Your task to perform on an android device: show emergency info Image 0: 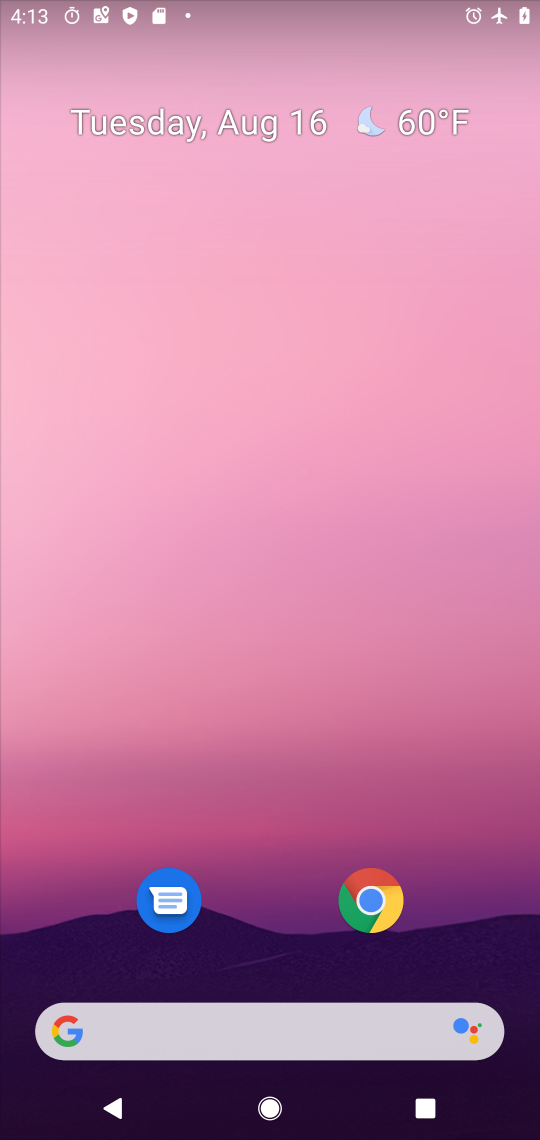
Step 0: drag from (229, 729) to (200, 235)
Your task to perform on an android device: show emergency info Image 1: 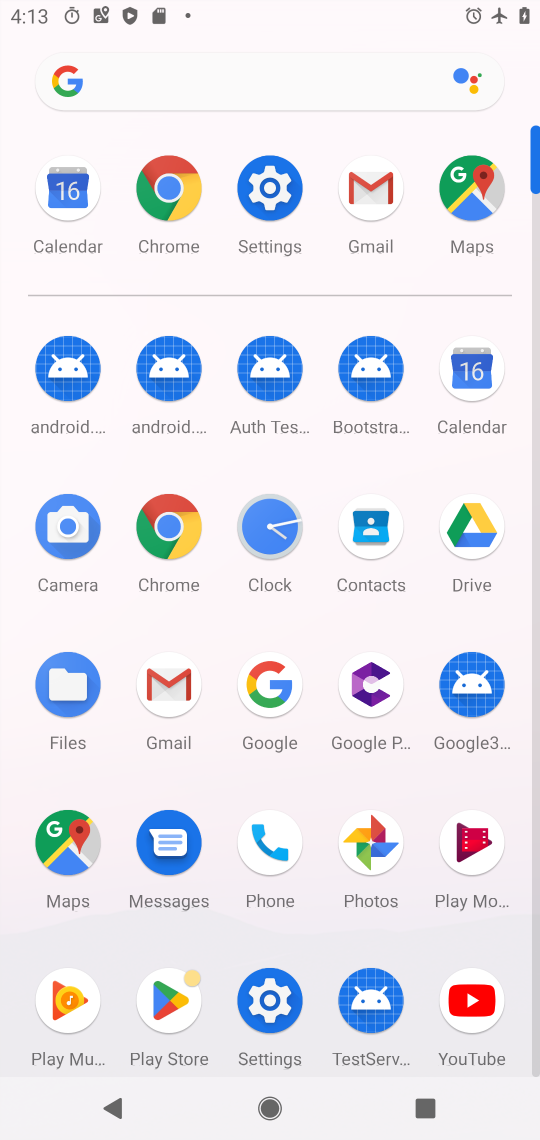
Step 1: click (263, 185)
Your task to perform on an android device: show emergency info Image 2: 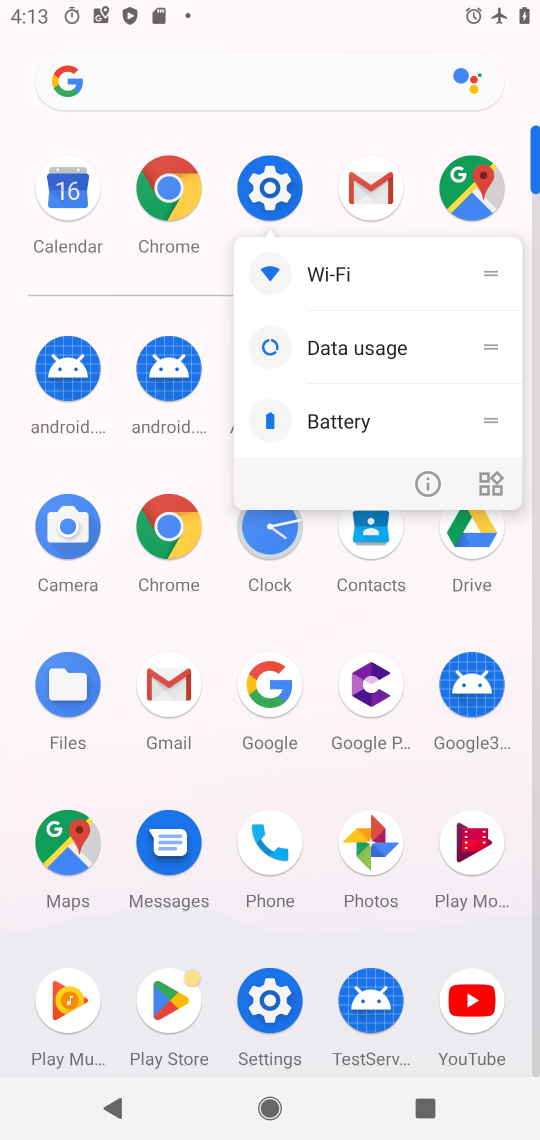
Step 2: click (259, 179)
Your task to perform on an android device: show emergency info Image 3: 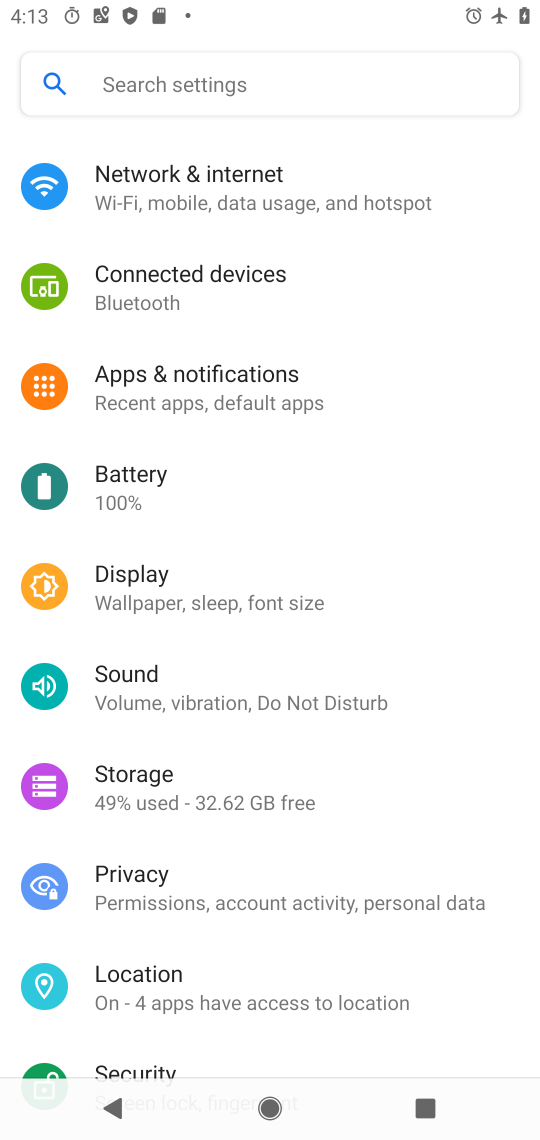
Step 3: drag from (173, 1017) to (139, 513)
Your task to perform on an android device: show emergency info Image 4: 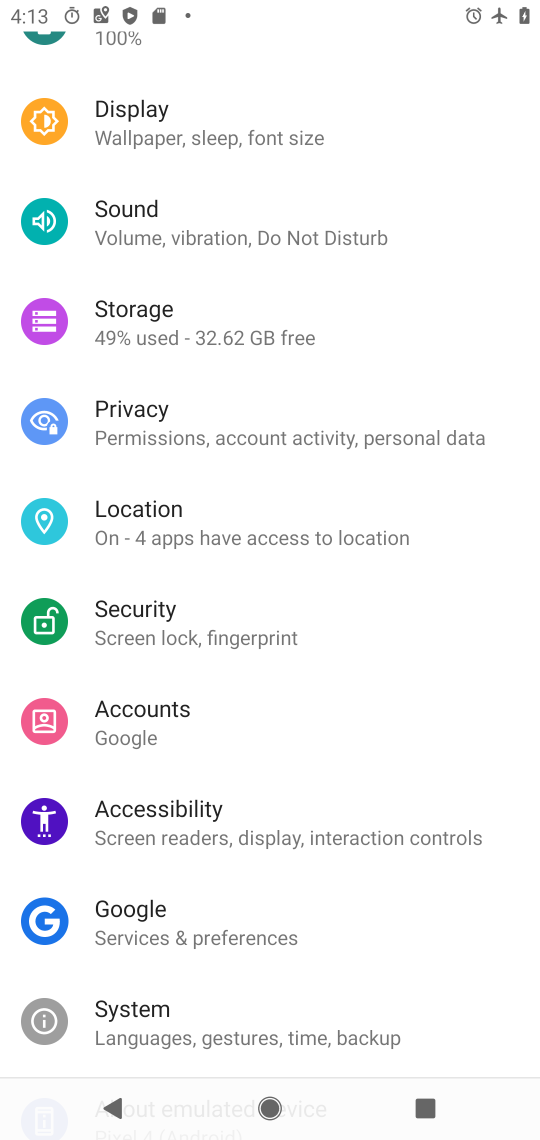
Step 4: drag from (155, 1011) to (148, 708)
Your task to perform on an android device: show emergency info Image 5: 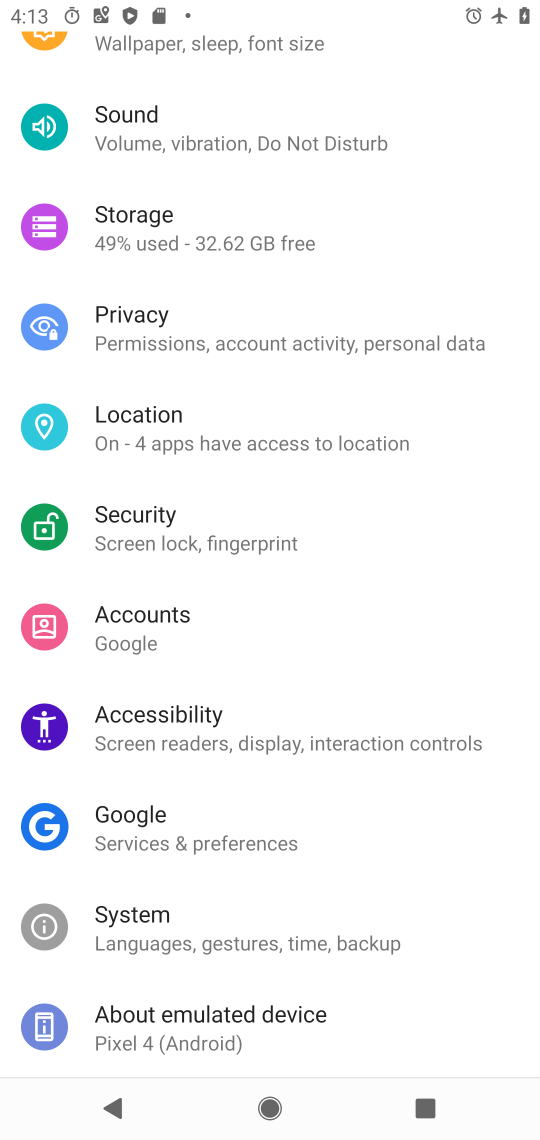
Step 5: drag from (202, 1020) to (183, 698)
Your task to perform on an android device: show emergency info Image 6: 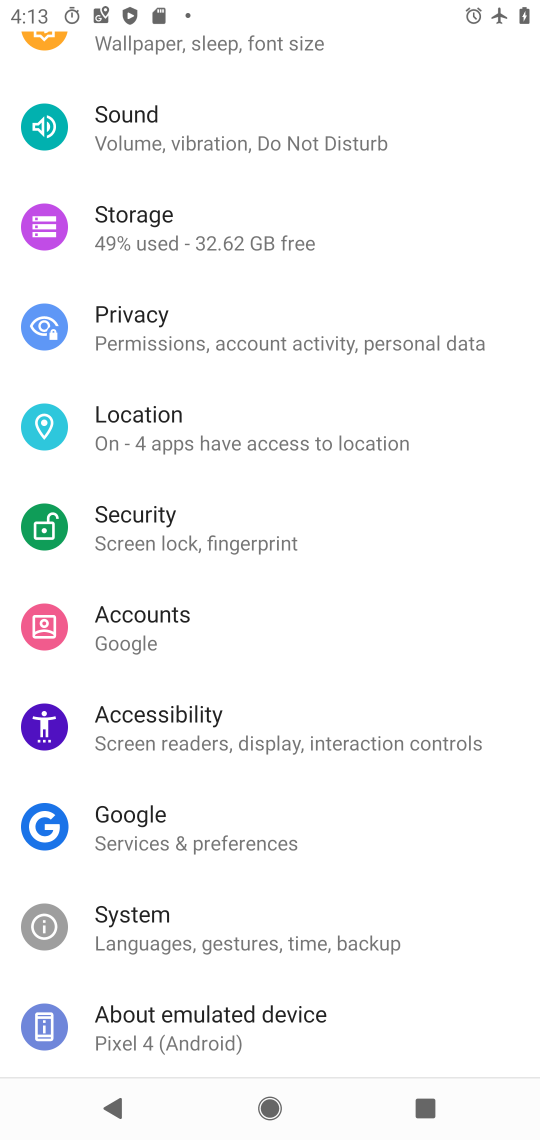
Step 6: click (152, 1014)
Your task to perform on an android device: show emergency info Image 7: 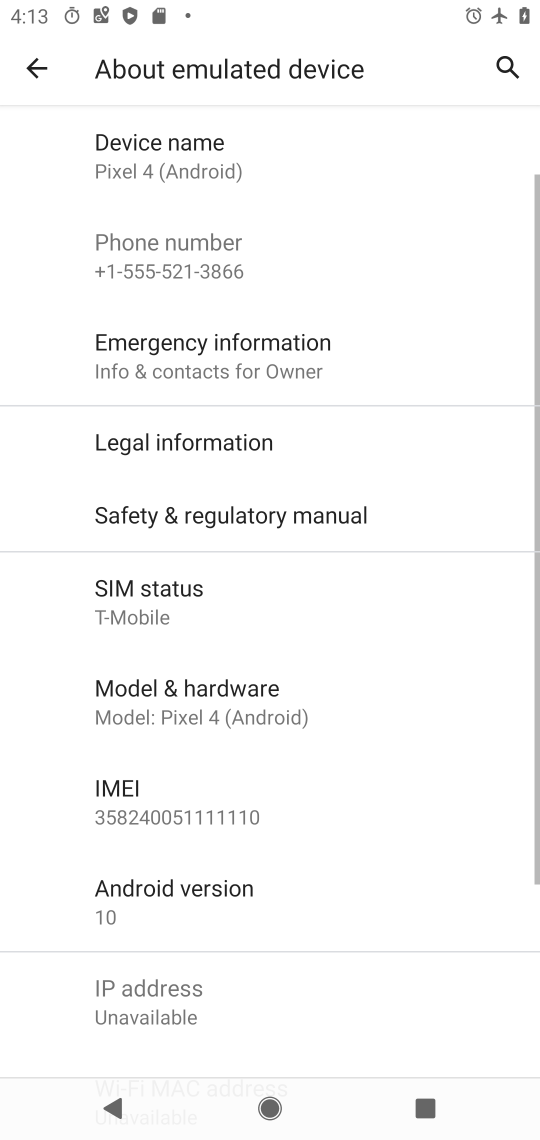
Step 7: click (219, 371)
Your task to perform on an android device: show emergency info Image 8: 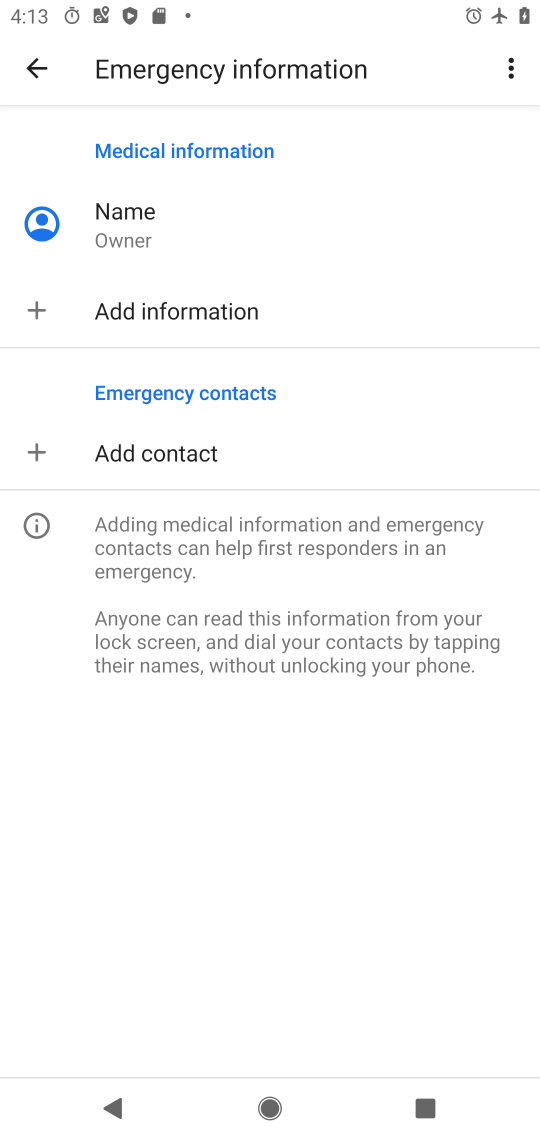
Step 8: task complete